Your task to perform on an android device: Open Youtube and go to "Your channel" Image 0: 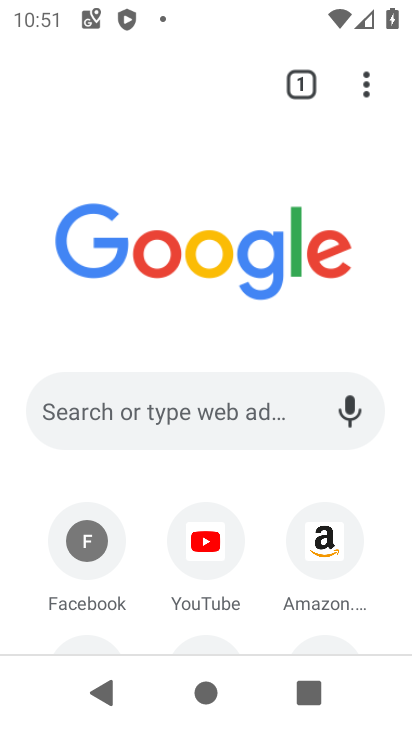
Step 0: click (204, 560)
Your task to perform on an android device: Open Youtube and go to "Your channel" Image 1: 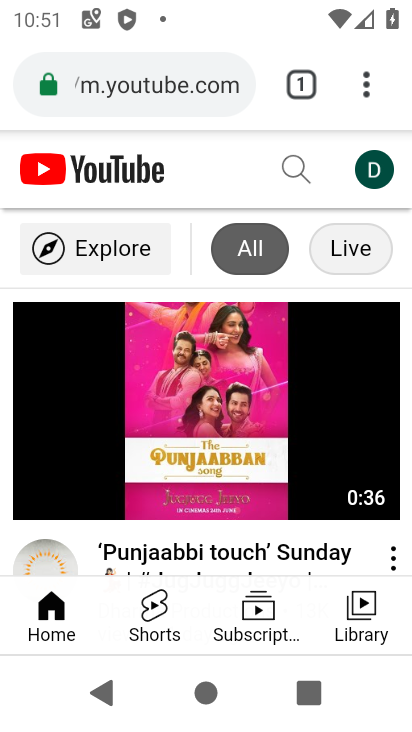
Step 1: click (365, 170)
Your task to perform on an android device: Open Youtube and go to "Your channel" Image 2: 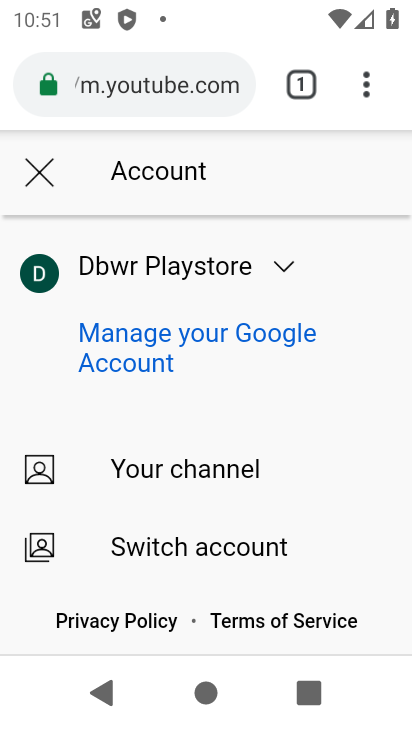
Step 2: click (188, 468)
Your task to perform on an android device: Open Youtube and go to "Your channel" Image 3: 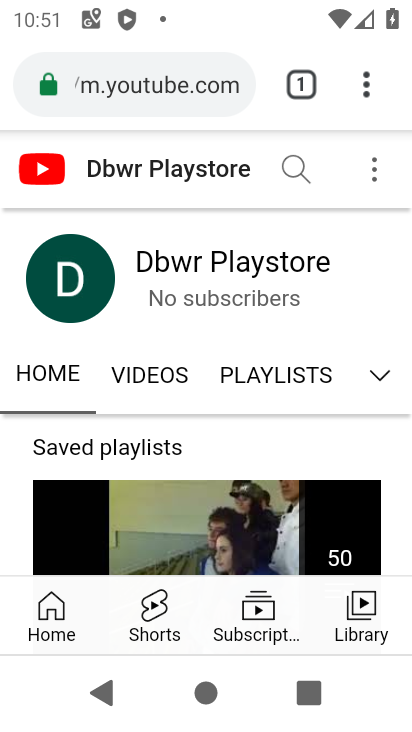
Step 3: task complete